Your task to perform on an android device: Open the calendar and show me this week's events? Image 0: 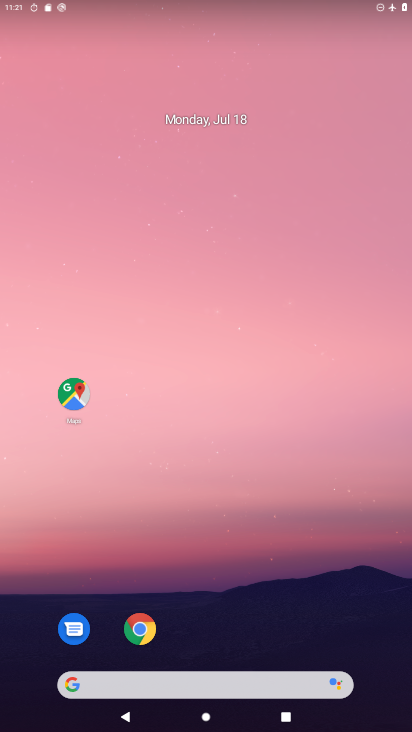
Step 0: drag from (256, 455) to (249, 225)
Your task to perform on an android device: Open the calendar and show me this week's events? Image 1: 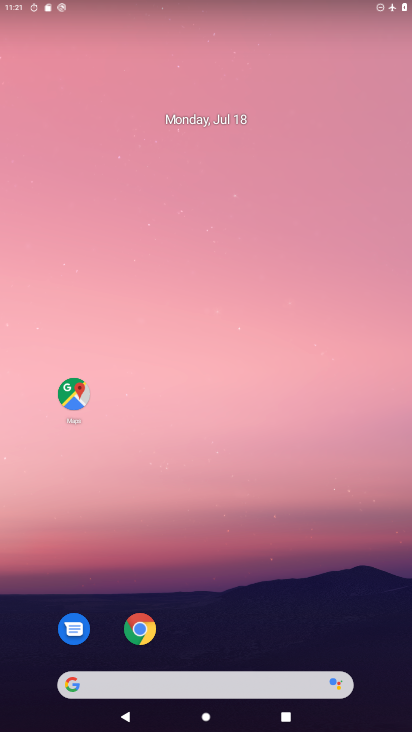
Step 1: drag from (289, 555) to (312, 2)
Your task to perform on an android device: Open the calendar and show me this week's events? Image 2: 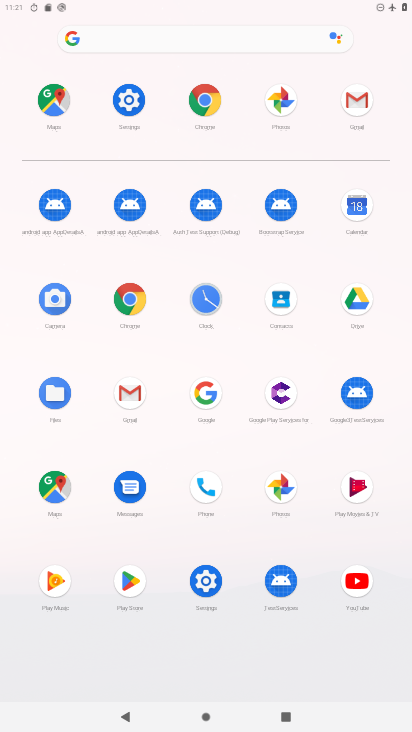
Step 2: click (356, 210)
Your task to perform on an android device: Open the calendar and show me this week's events? Image 3: 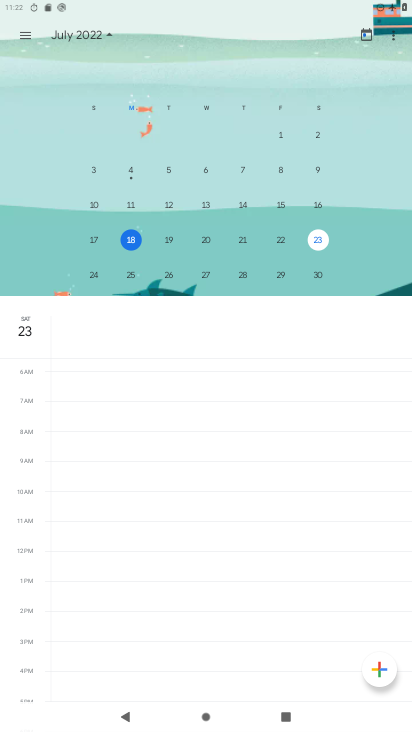
Step 3: click (24, 36)
Your task to perform on an android device: Open the calendar and show me this week's events? Image 4: 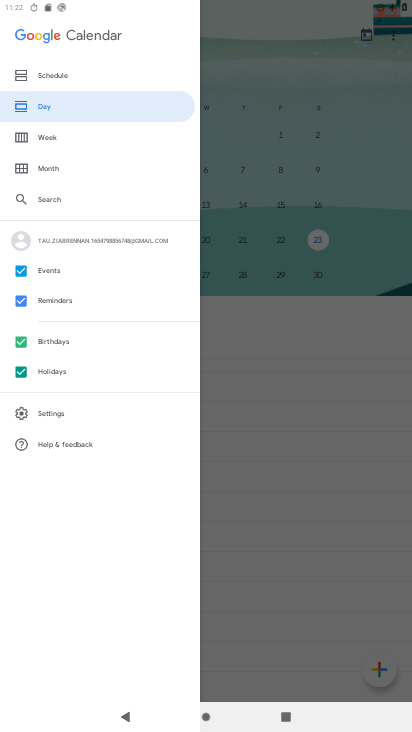
Step 4: click (58, 141)
Your task to perform on an android device: Open the calendar and show me this week's events? Image 5: 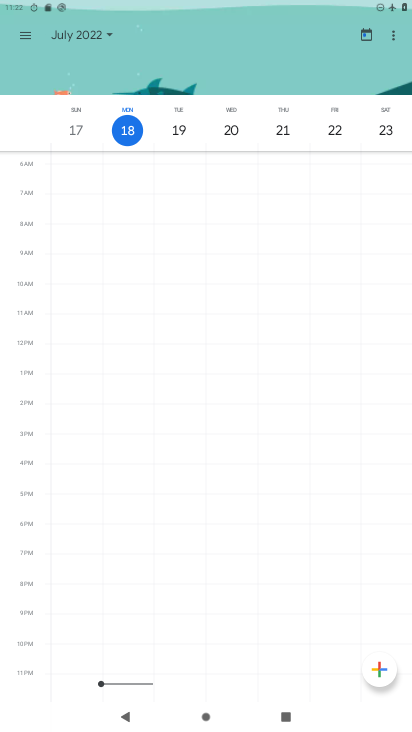
Step 5: task complete